Your task to perform on an android device: Open internet settings Image 0: 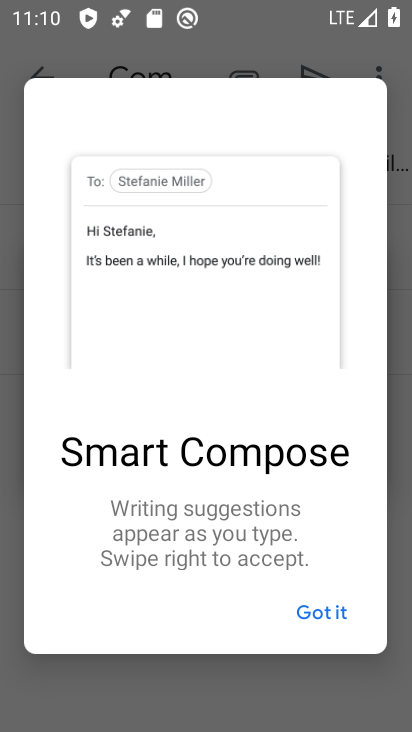
Step 0: press home button
Your task to perform on an android device: Open internet settings Image 1: 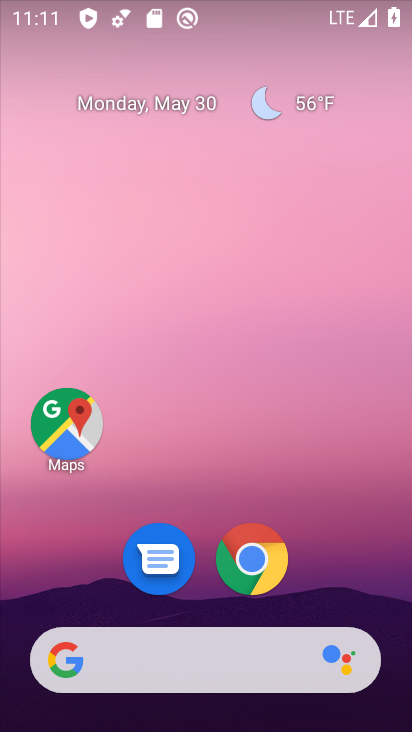
Step 1: drag from (368, 589) to (213, 64)
Your task to perform on an android device: Open internet settings Image 2: 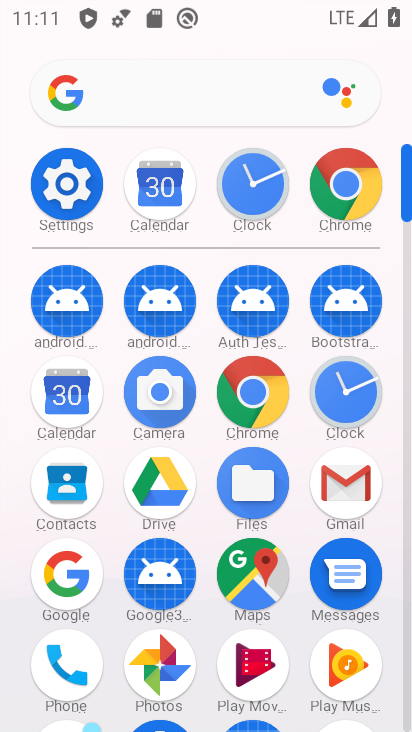
Step 2: click (75, 187)
Your task to perform on an android device: Open internet settings Image 3: 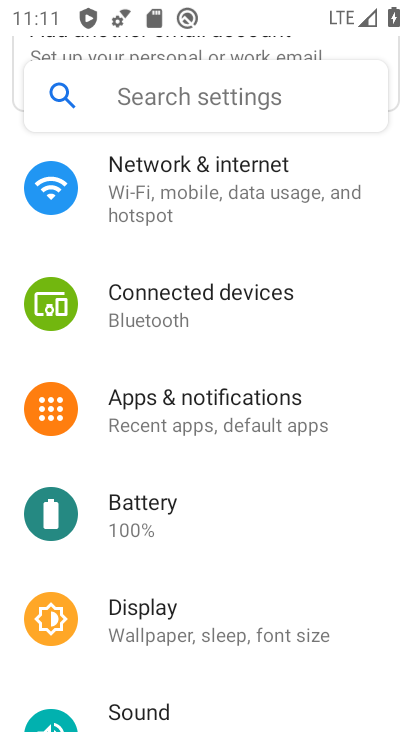
Step 3: click (219, 182)
Your task to perform on an android device: Open internet settings Image 4: 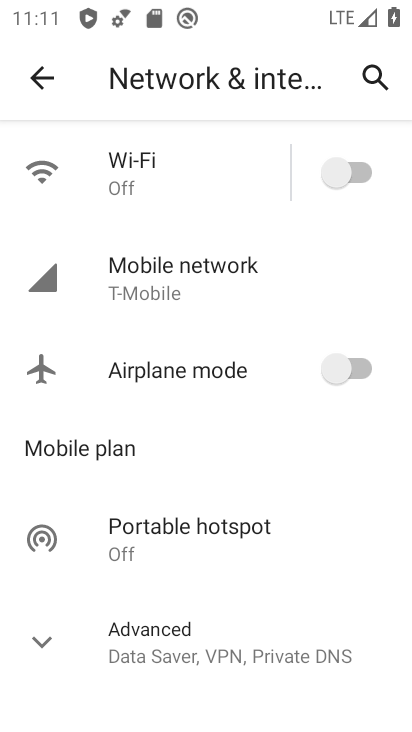
Step 4: task complete